Your task to perform on an android device: change keyboard looks Image 0: 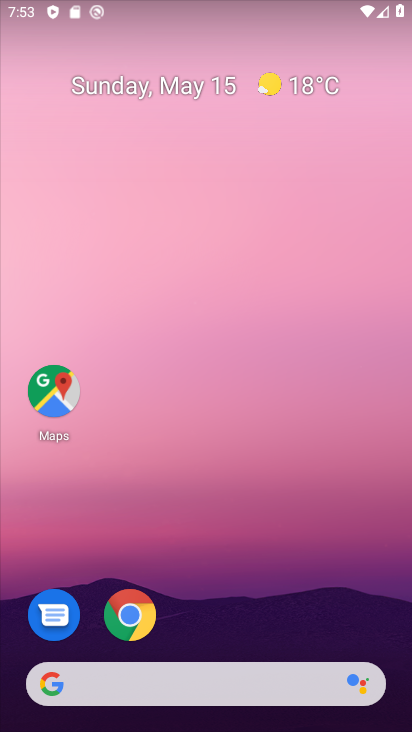
Step 0: drag from (108, 474) to (366, 106)
Your task to perform on an android device: change keyboard looks Image 1: 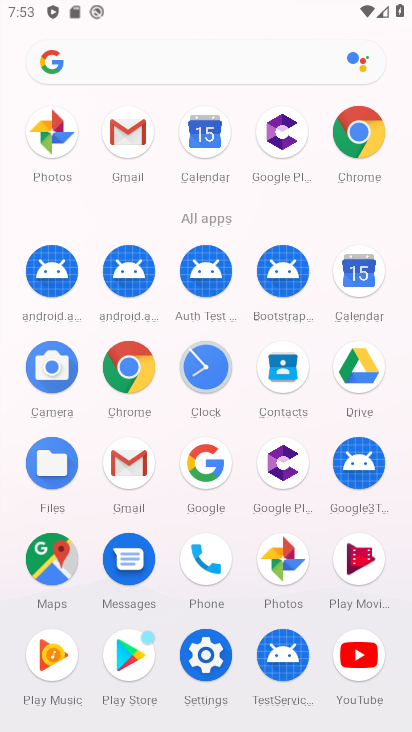
Step 1: click (214, 664)
Your task to perform on an android device: change keyboard looks Image 2: 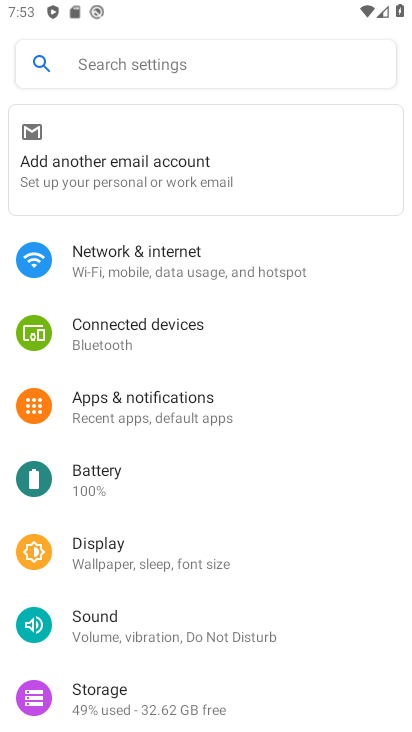
Step 2: drag from (144, 661) to (280, 179)
Your task to perform on an android device: change keyboard looks Image 3: 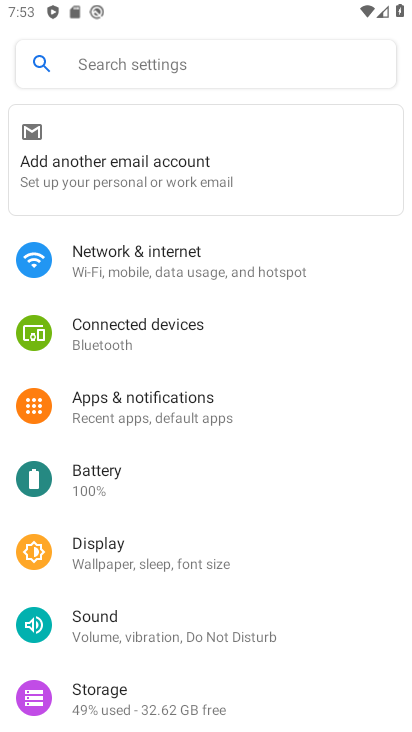
Step 3: drag from (74, 654) to (325, 178)
Your task to perform on an android device: change keyboard looks Image 4: 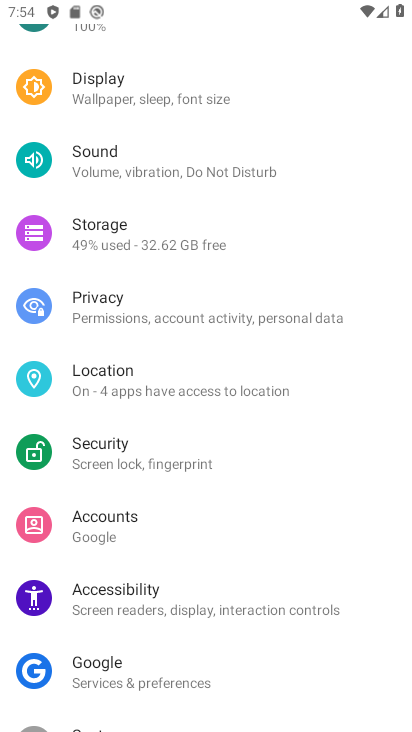
Step 4: drag from (125, 579) to (202, 165)
Your task to perform on an android device: change keyboard looks Image 5: 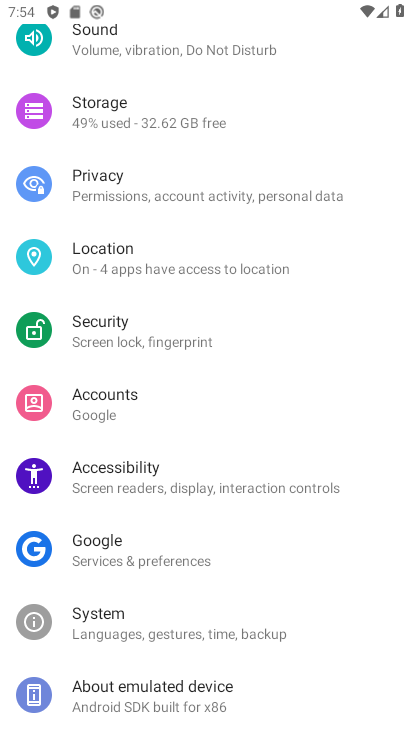
Step 5: click (177, 612)
Your task to perform on an android device: change keyboard looks Image 6: 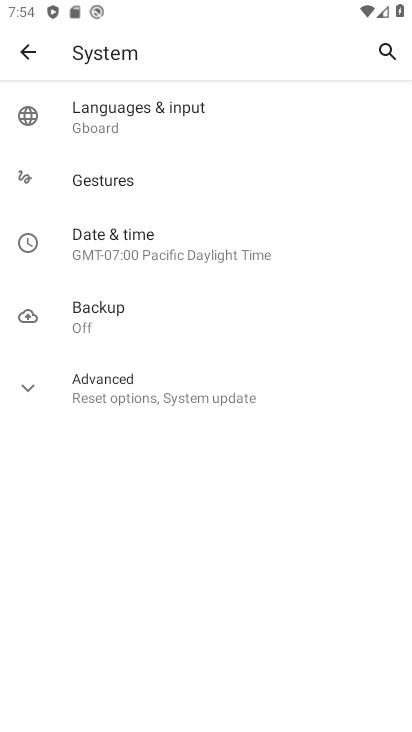
Step 6: click (201, 120)
Your task to perform on an android device: change keyboard looks Image 7: 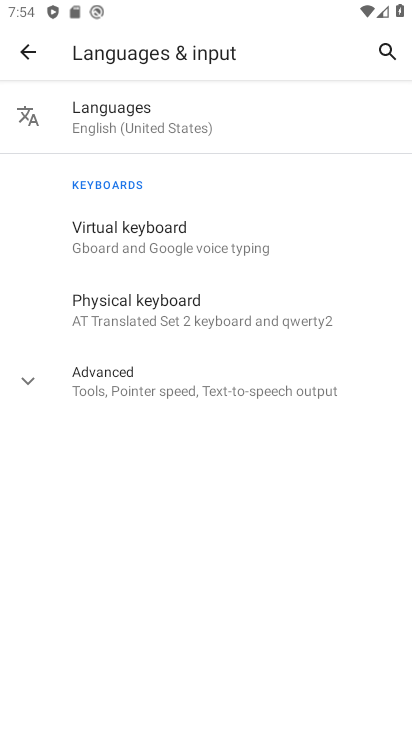
Step 7: click (119, 125)
Your task to perform on an android device: change keyboard looks Image 8: 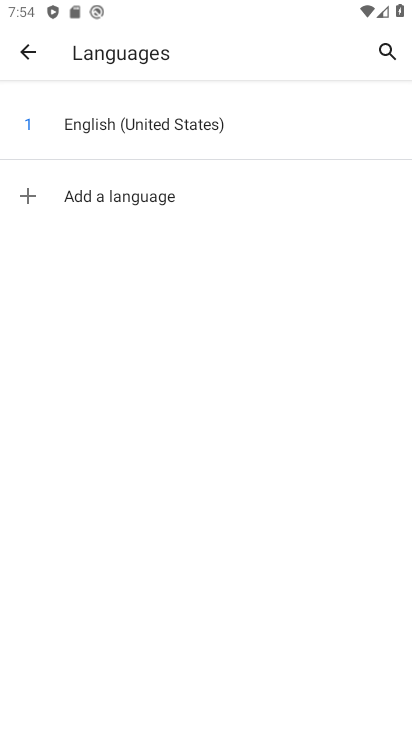
Step 8: press back button
Your task to perform on an android device: change keyboard looks Image 9: 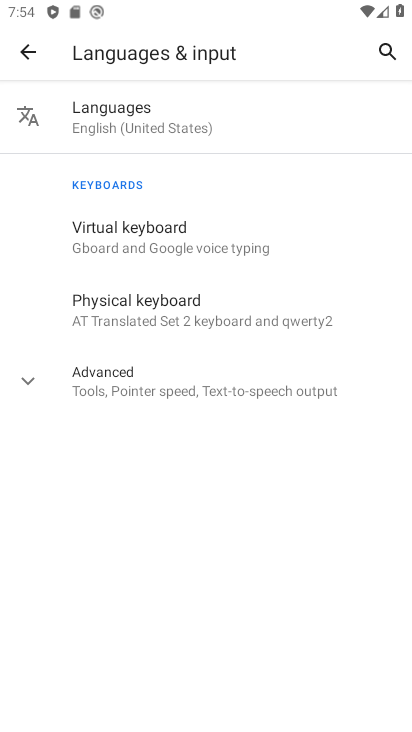
Step 9: click (110, 241)
Your task to perform on an android device: change keyboard looks Image 10: 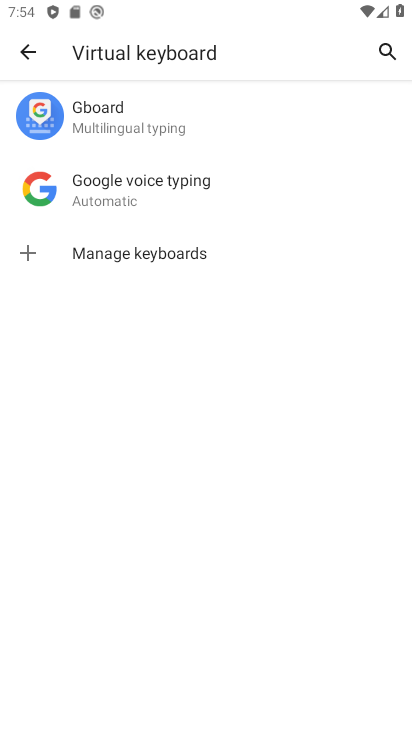
Step 10: click (140, 120)
Your task to perform on an android device: change keyboard looks Image 11: 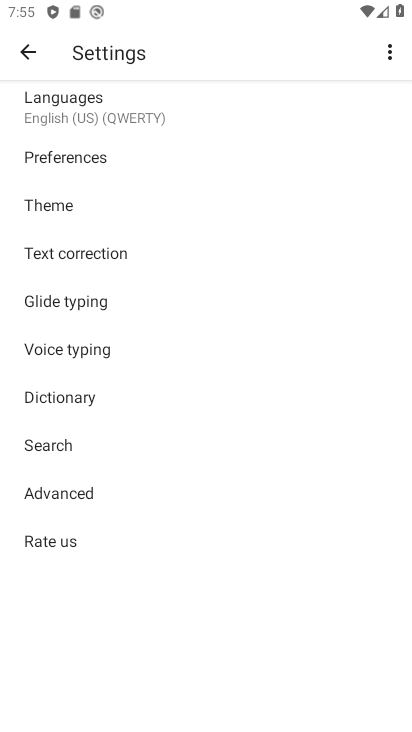
Step 11: click (93, 116)
Your task to perform on an android device: change keyboard looks Image 12: 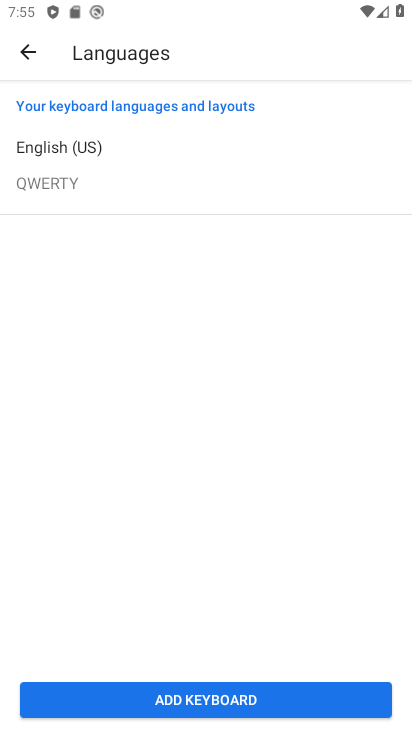
Step 12: click (182, 163)
Your task to perform on an android device: change keyboard looks Image 13: 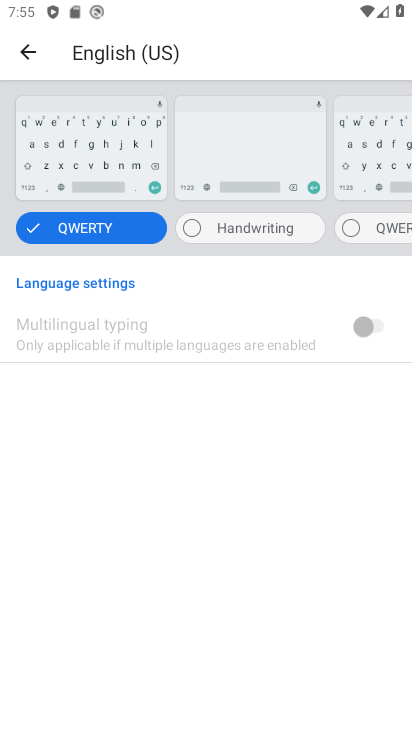
Step 13: click (367, 141)
Your task to perform on an android device: change keyboard looks Image 14: 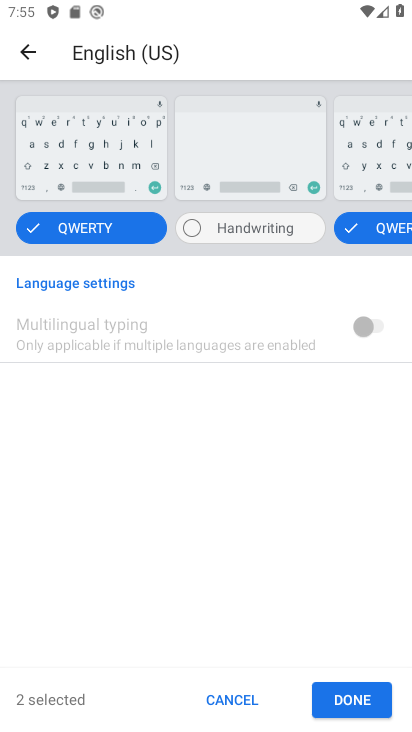
Step 14: click (334, 697)
Your task to perform on an android device: change keyboard looks Image 15: 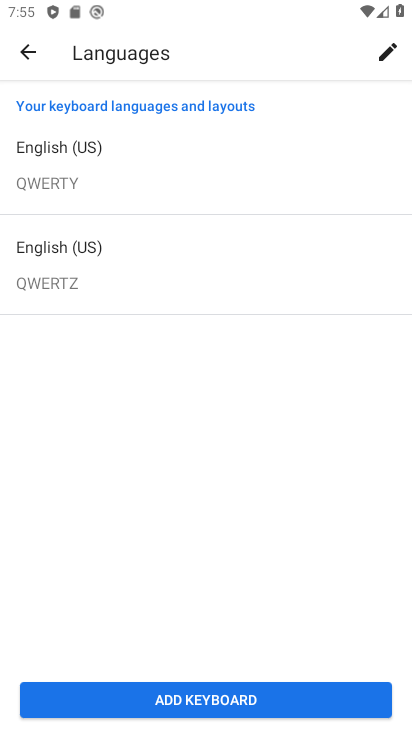
Step 15: task complete